Your task to perform on an android device: change the clock display to analog Image 0: 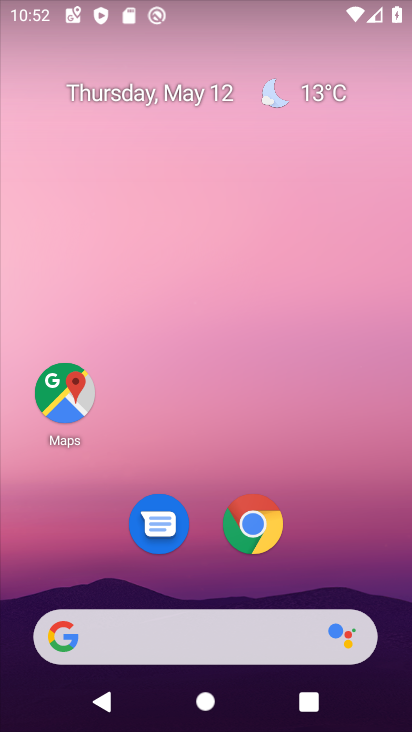
Step 0: drag from (332, 525) to (373, 64)
Your task to perform on an android device: change the clock display to analog Image 1: 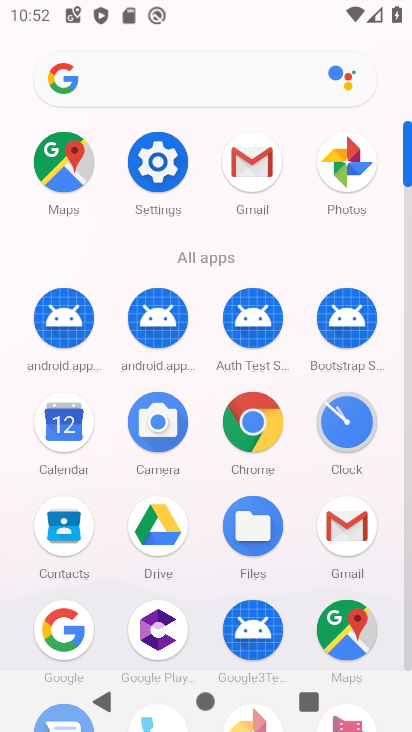
Step 1: click (336, 414)
Your task to perform on an android device: change the clock display to analog Image 2: 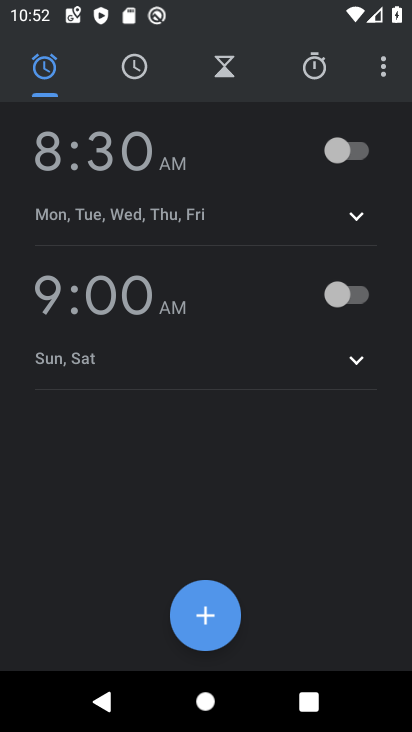
Step 2: click (132, 62)
Your task to perform on an android device: change the clock display to analog Image 3: 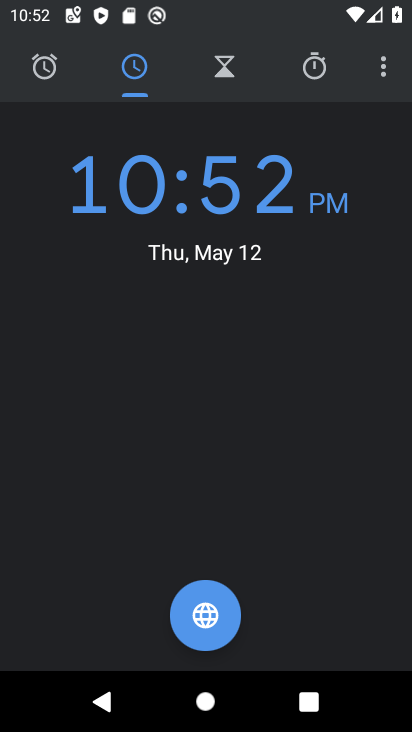
Step 3: click (387, 66)
Your task to perform on an android device: change the clock display to analog Image 4: 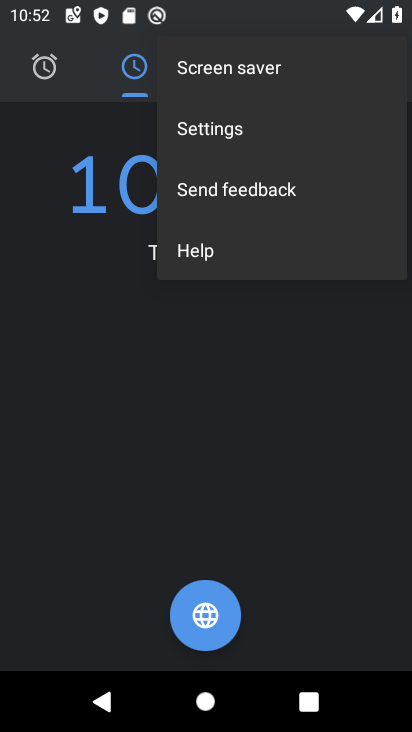
Step 4: click (292, 139)
Your task to perform on an android device: change the clock display to analog Image 5: 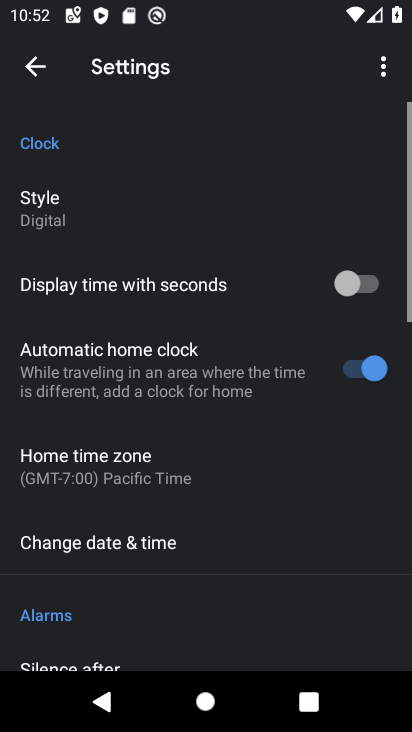
Step 5: click (84, 207)
Your task to perform on an android device: change the clock display to analog Image 6: 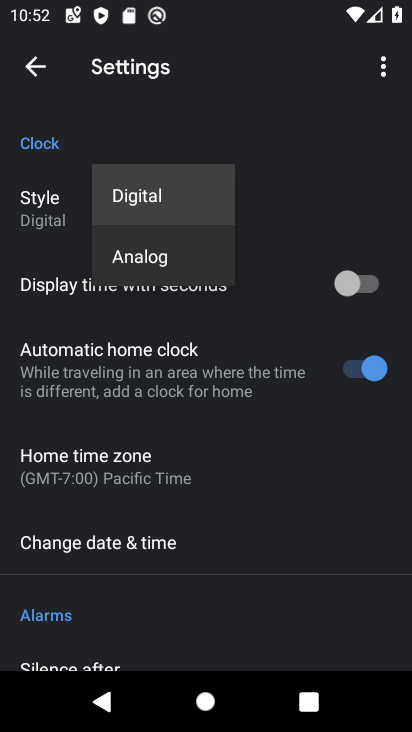
Step 6: click (125, 246)
Your task to perform on an android device: change the clock display to analog Image 7: 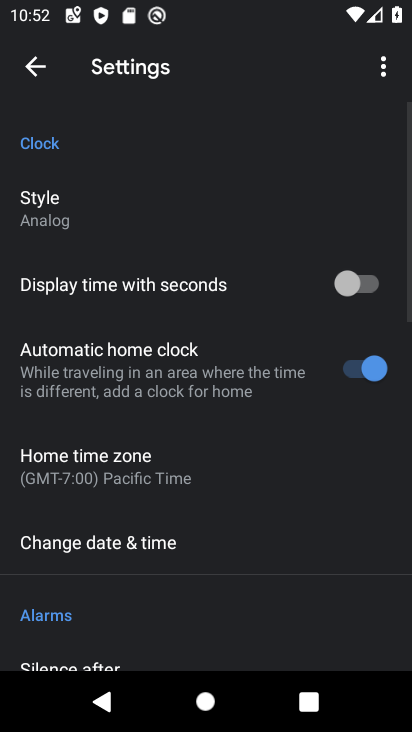
Step 7: click (41, 66)
Your task to perform on an android device: change the clock display to analog Image 8: 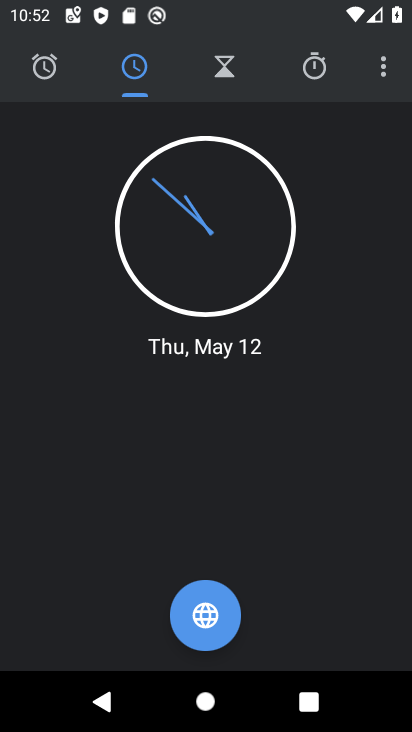
Step 8: task complete